Your task to perform on an android device: Open the calendar app, open the side menu, and click the "Day" option Image 0: 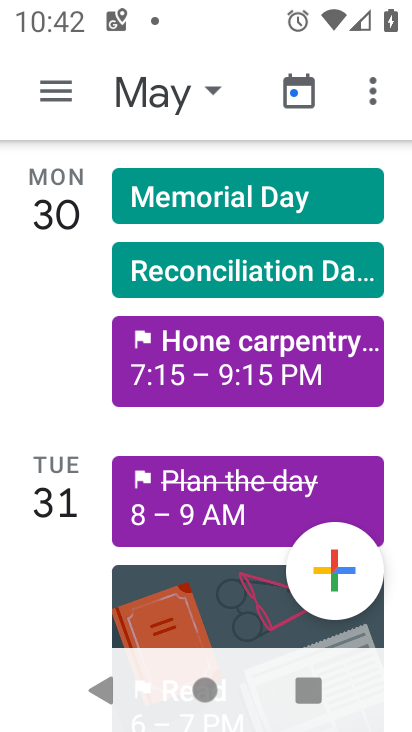
Step 0: press home button
Your task to perform on an android device: Open the calendar app, open the side menu, and click the "Day" option Image 1: 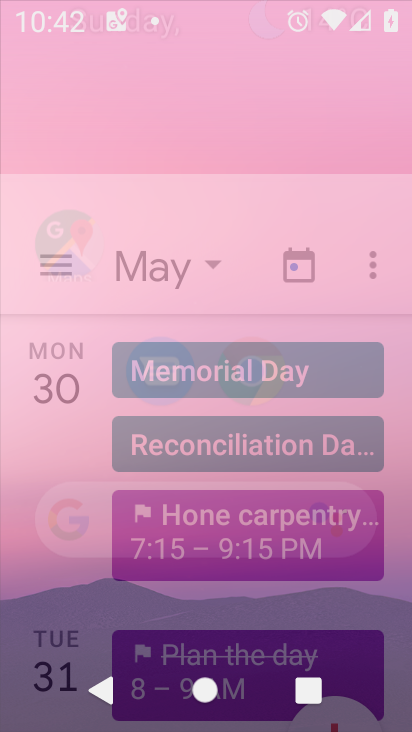
Step 1: drag from (228, 590) to (342, 77)
Your task to perform on an android device: Open the calendar app, open the side menu, and click the "Day" option Image 2: 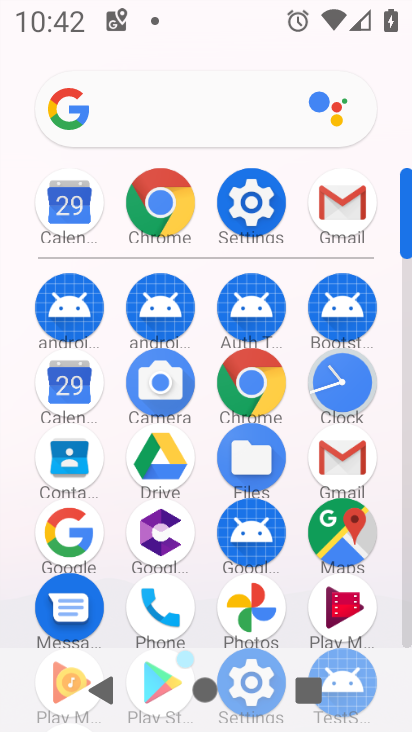
Step 2: click (78, 393)
Your task to perform on an android device: Open the calendar app, open the side menu, and click the "Day" option Image 3: 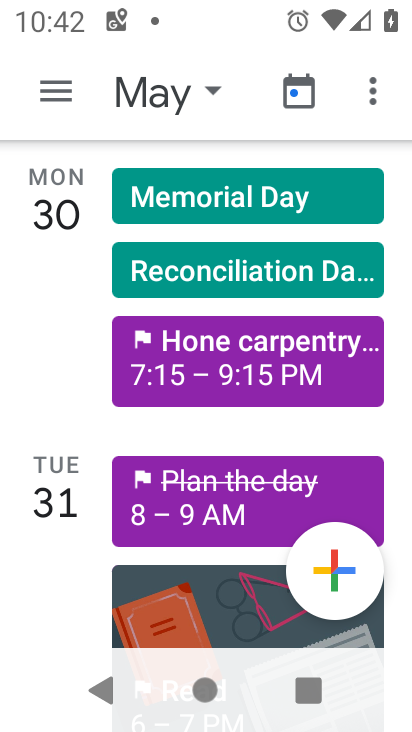
Step 3: click (57, 82)
Your task to perform on an android device: Open the calendar app, open the side menu, and click the "Day" option Image 4: 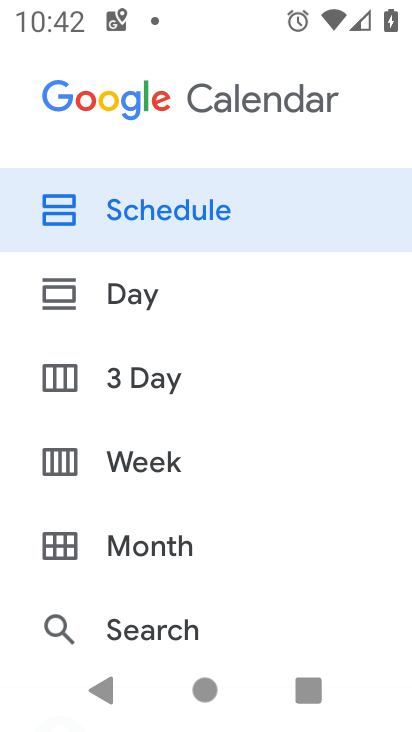
Step 4: click (151, 317)
Your task to perform on an android device: Open the calendar app, open the side menu, and click the "Day" option Image 5: 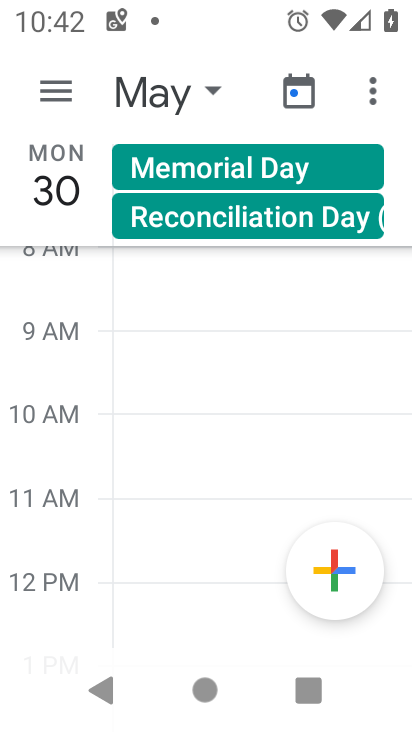
Step 5: task complete